Your task to perform on an android device: turn off wifi Image 0: 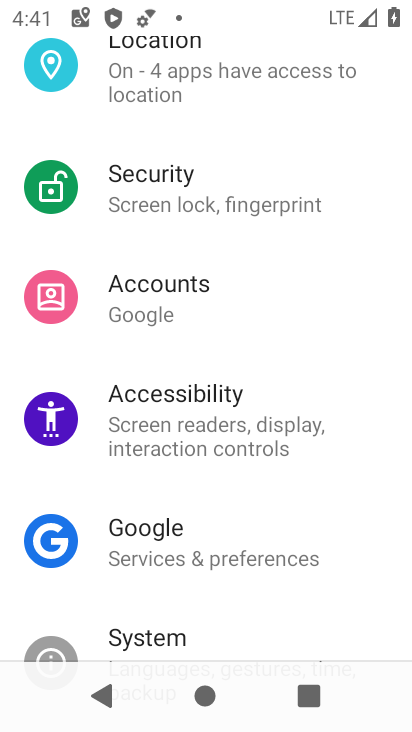
Step 0: drag from (384, 200) to (177, 586)
Your task to perform on an android device: turn off wifi Image 1: 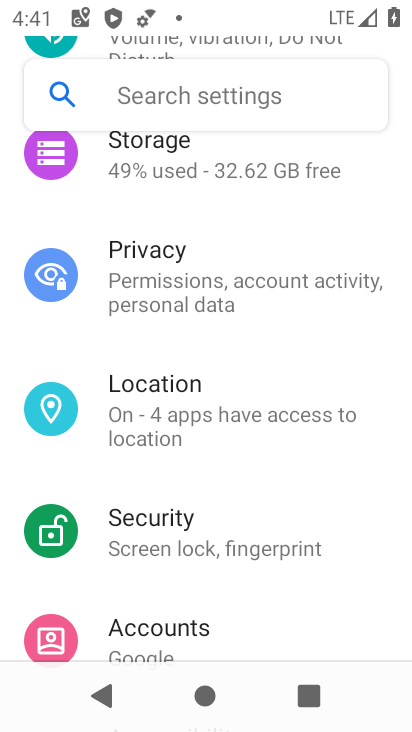
Step 1: drag from (215, 232) to (215, 604)
Your task to perform on an android device: turn off wifi Image 2: 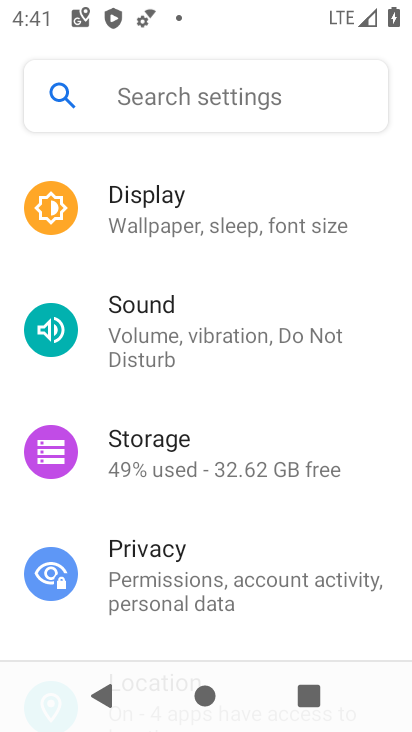
Step 2: drag from (273, 252) to (297, 582)
Your task to perform on an android device: turn off wifi Image 3: 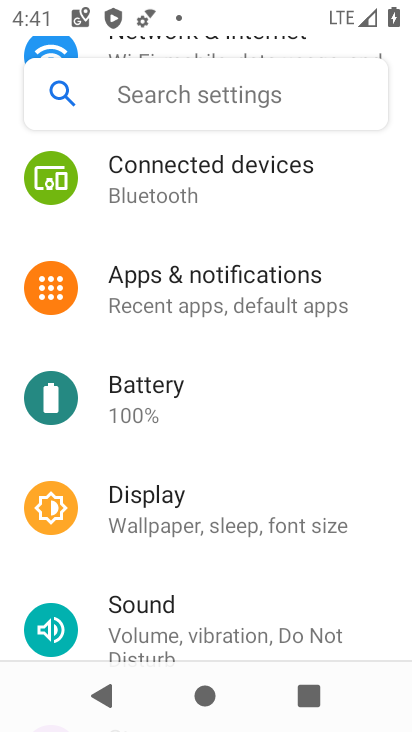
Step 3: drag from (257, 252) to (277, 515)
Your task to perform on an android device: turn off wifi Image 4: 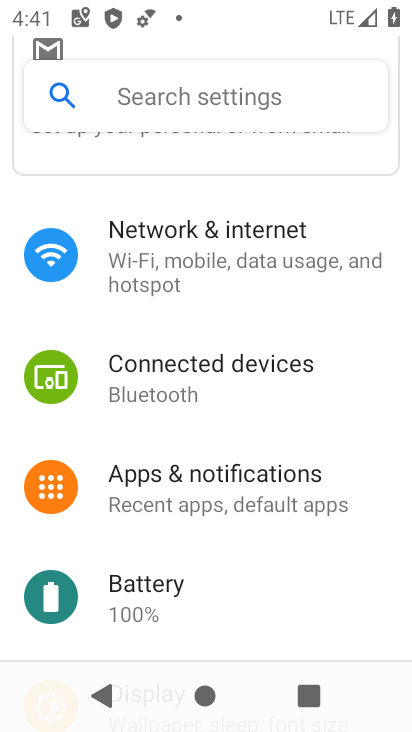
Step 4: click (237, 243)
Your task to perform on an android device: turn off wifi Image 5: 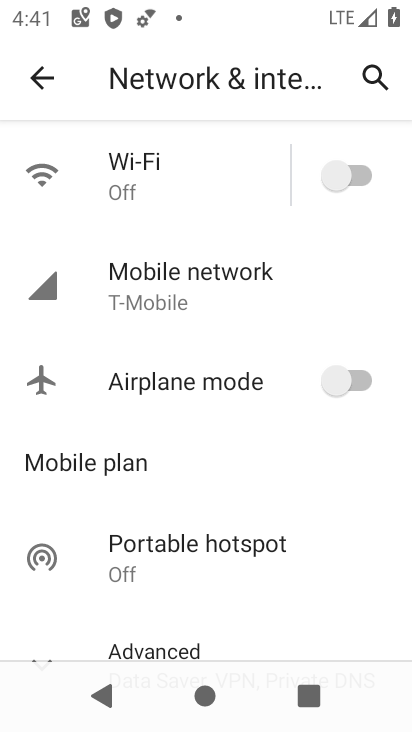
Step 5: task complete